Your task to perform on an android device: Open Android settings Image 0: 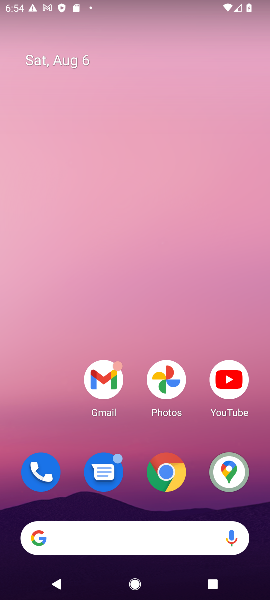
Step 0: drag from (198, 501) to (179, 103)
Your task to perform on an android device: Open Android settings Image 1: 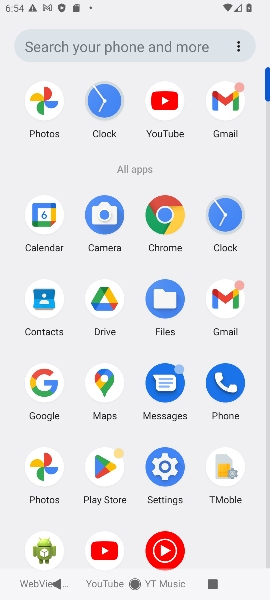
Step 1: click (161, 469)
Your task to perform on an android device: Open Android settings Image 2: 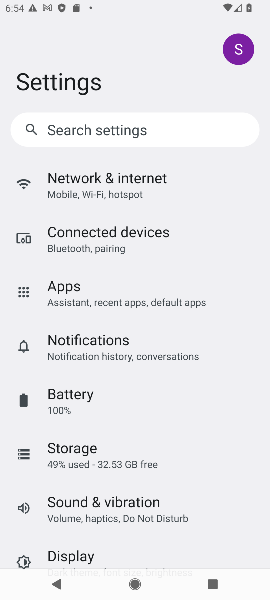
Step 2: drag from (212, 500) to (190, 229)
Your task to perform on an android device: Open Android settings Image 3: 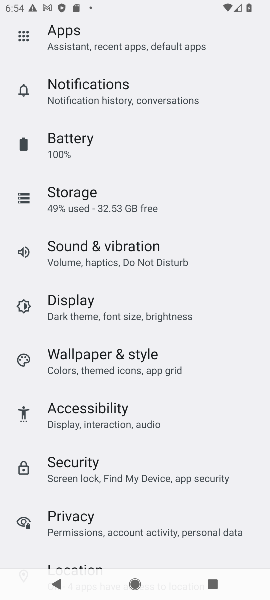
Step 3: drag from (196, 524) to (182, 178)
Your task to perform on an android device: Open Android settings Image 4: 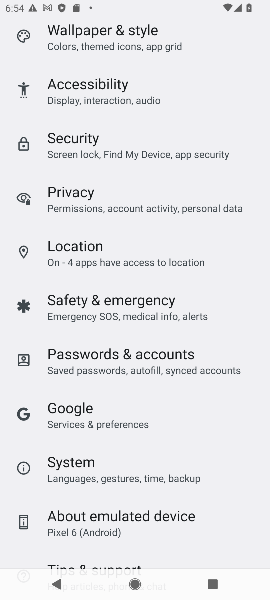
Step 4: drag from (187, 533) to (175, 267)
Your task to perform on an android device: Open Android settings Image 5: 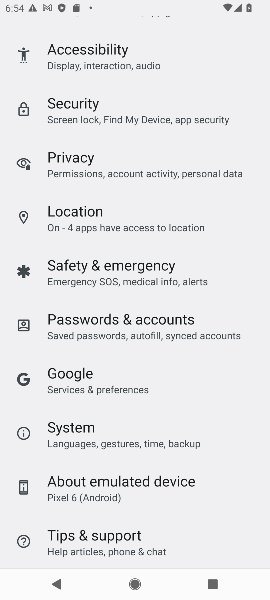
Step 5: click (84, 486)
Your task to perform on an android device: Open Android settings Image 6: 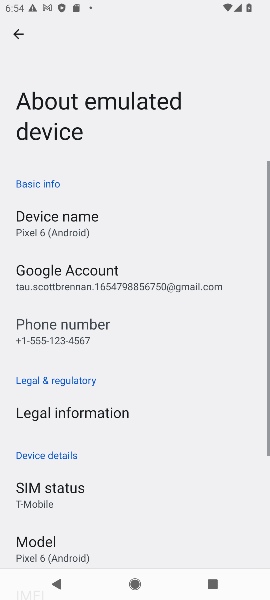
Step 6: task complete